Your task to perform on an android device: Open my contact list Image 0: 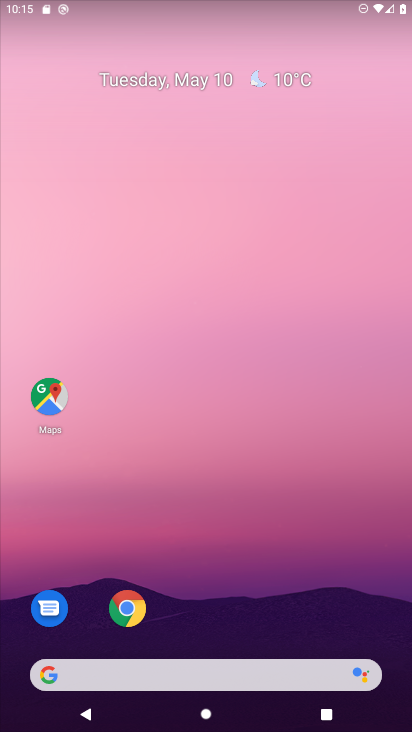
Step 0: drag from (364, 592) to (277, 56)
Your task to perform on an android device: Open my contact list Image 1: 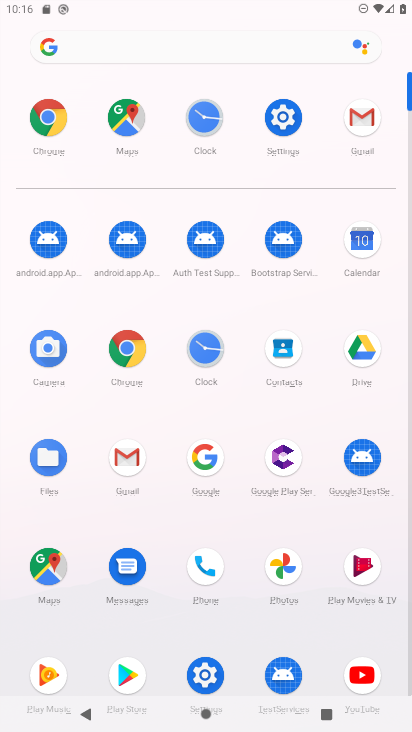
Step 1: click (284, 345)
Your task to perform on an android device: Open my contact list Image 2: 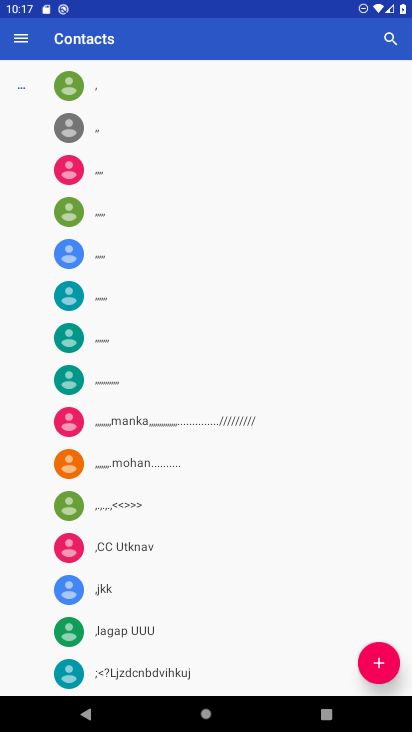
Step 2: task complete